Your task to perform on an android device: delete location history Image 0: 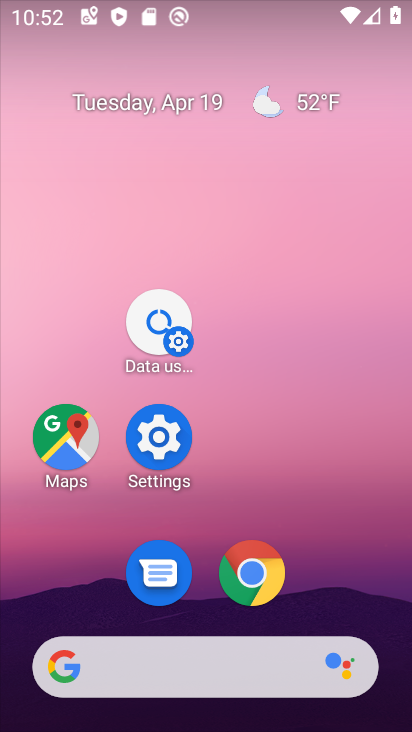
Step 0: click (58, 443)
Your task to perform on an android device: delete location history Image 1: 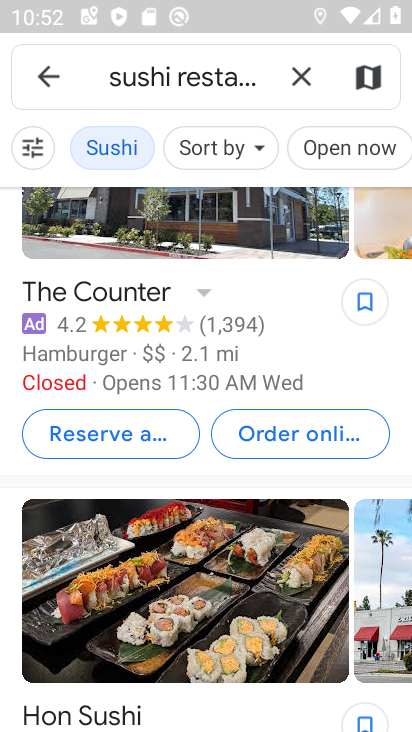
Step 1: click (296, 79)
Your task to perform on an android device: delete location history Image 2: 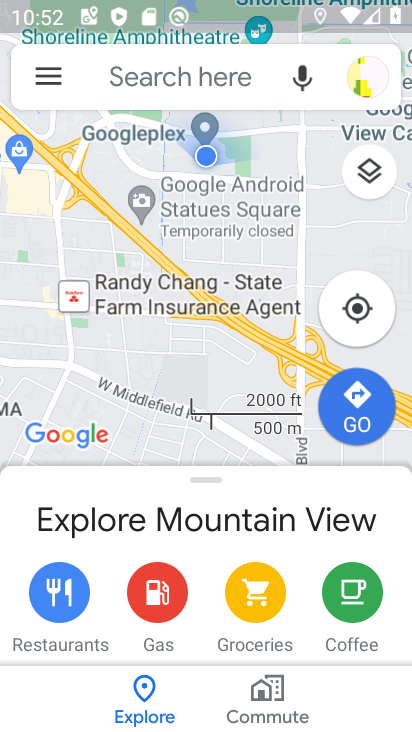
Step 2: click (46, 79)
Your task to perform on an android device: delete location history Image 3: 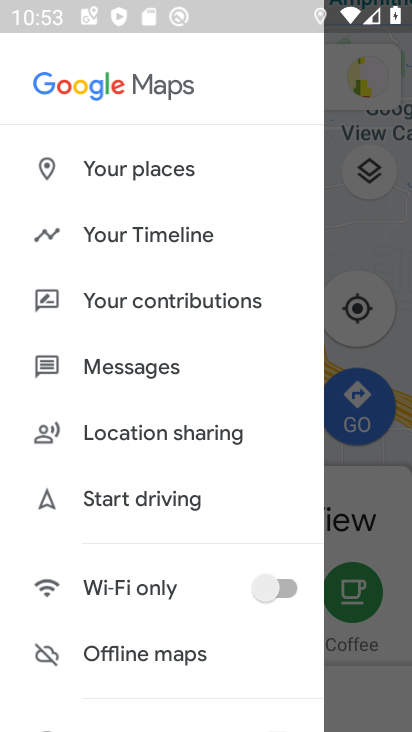
Step 3: click (117, 240)
Your task to perform on an android device: delete location history Image 4: 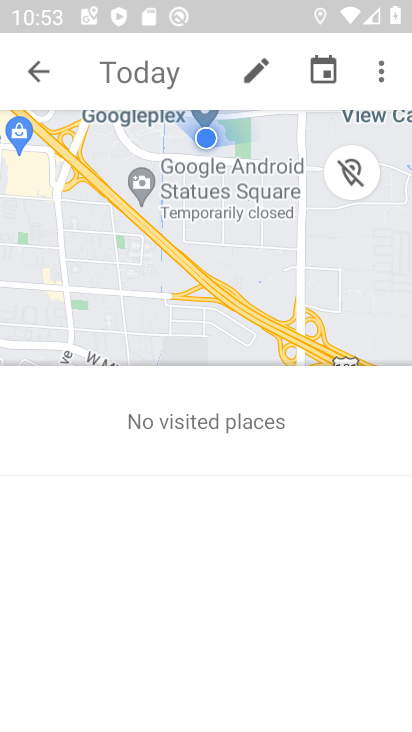
Step 4: click (382, 72)
Your task to perform on an android device: delete location history Image 5: 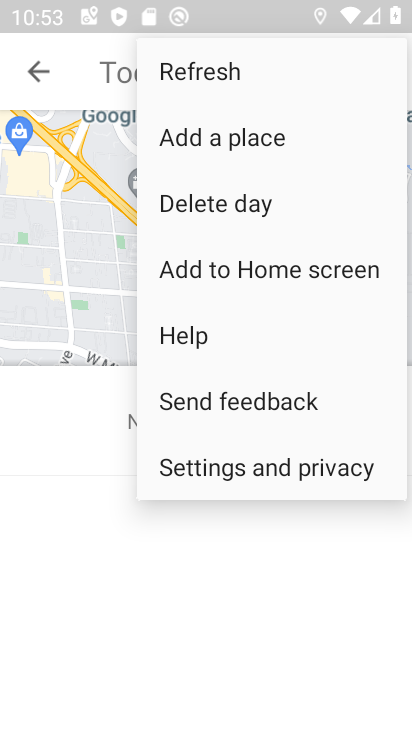
Step 5: click (239, 472)
Your task to perform on an android device: delete location history Image 6: 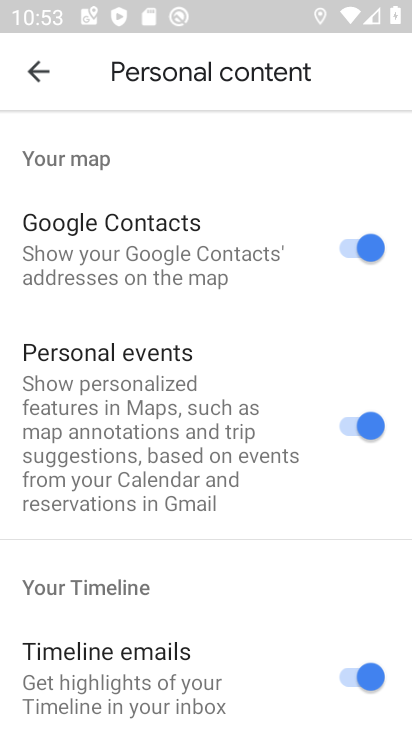
Step 6: drag from (218, 591) to (196, 114)
Your task to perform on an android device: delete location history Image 7: 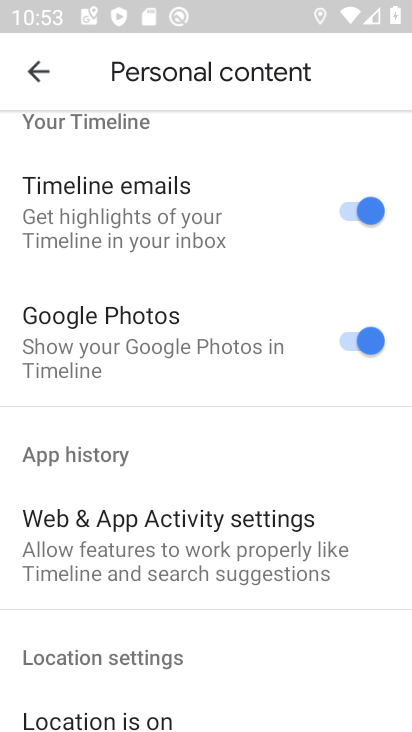
Step 7: drag from (196, 579) to (135, 62)
Your task to perform on an android device: delete location history Image 8: 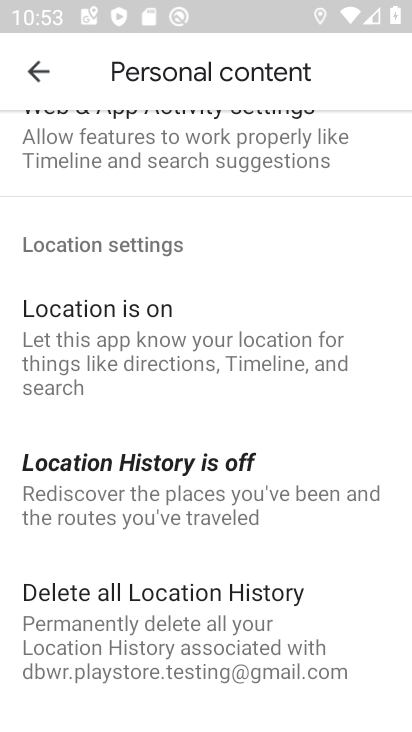
Step 8: click (138, 602)
Your task to perform on an android device: delete location history Image 9: 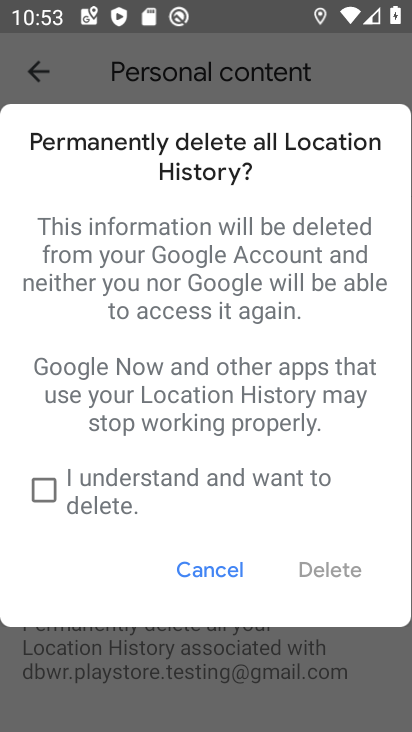
Step 9: click (43, 484)
Your task to perform on an android device: delete location history Image 10: 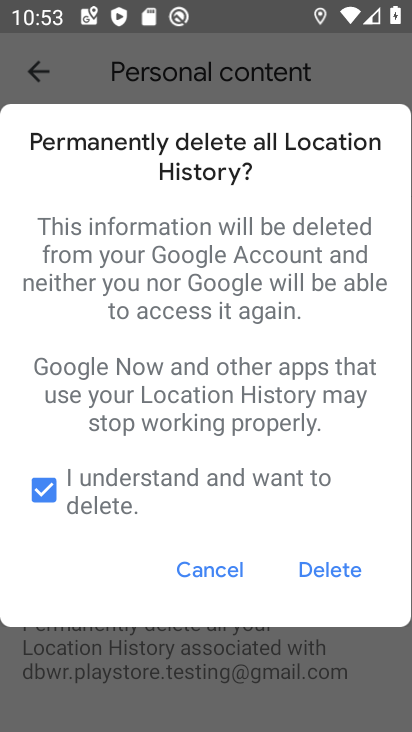
Step 10: click (339, 572)
Your task to perform on an android device: delete location history Image 11: 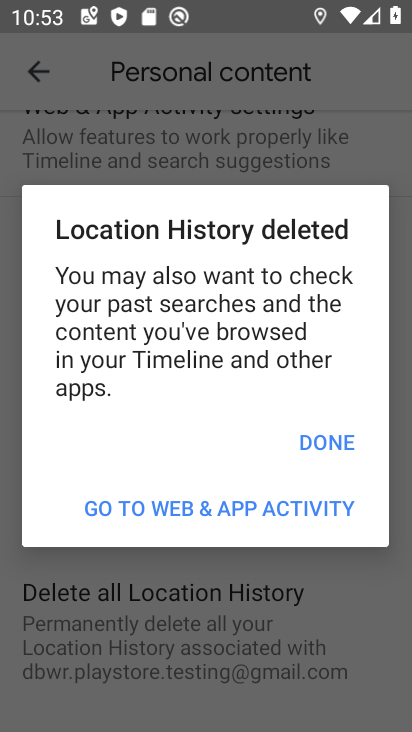
Step 11: click (315, 436)
Your task to perform on an android device: delete location history Image 12: 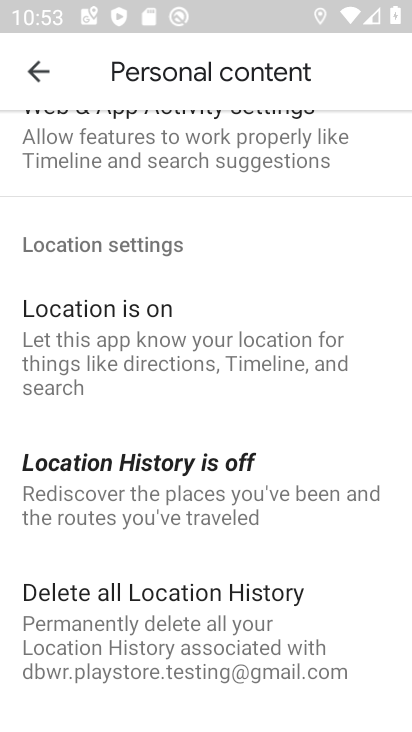
Step 12: task complete